Your task to perform on an android device: Open Yahoo.com Image 0: 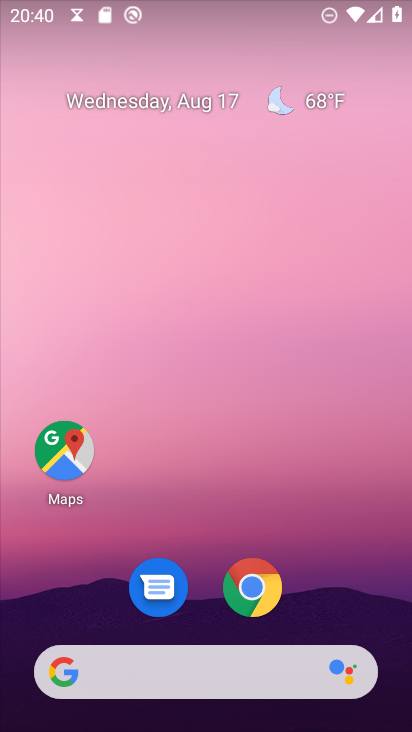
Step 0: click (121, 669)
Your task to perform on an android device: Open Yahoo.com Image 1: 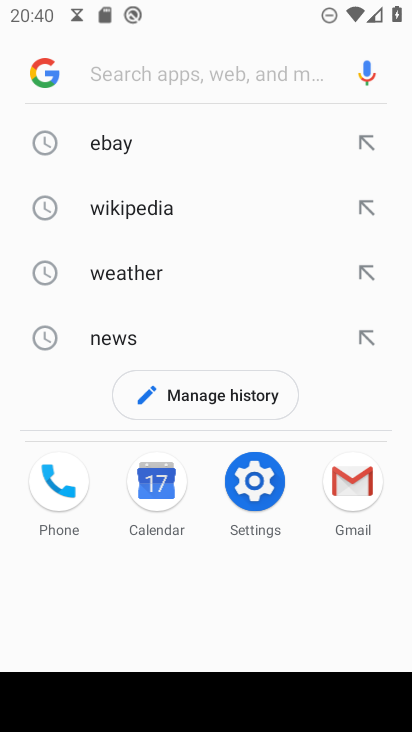
Step 1: type "Yahoo.com"
Your task to perform on an android device: Open Yahoo.com Image 2: 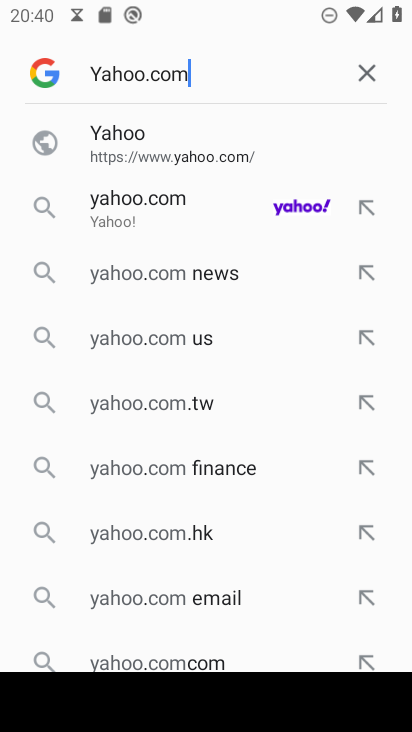
Step 2: click (155, 191)
Your task to perform on an android device: Open Yahoo.com Image 3: 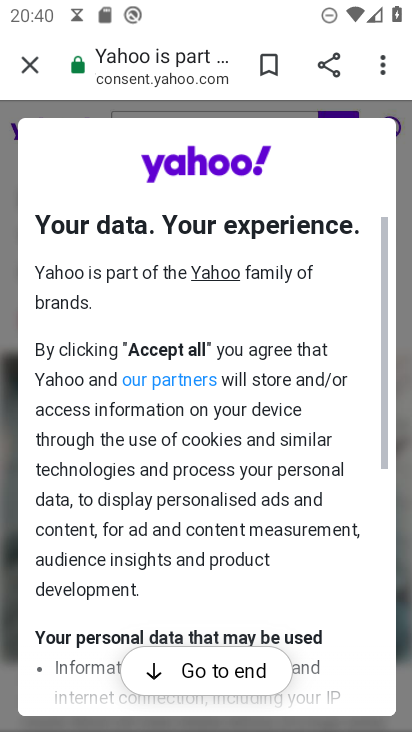
Step 3: task complete